Your task to perform on an android device: Is it going to rain tomorrow? Image 0: 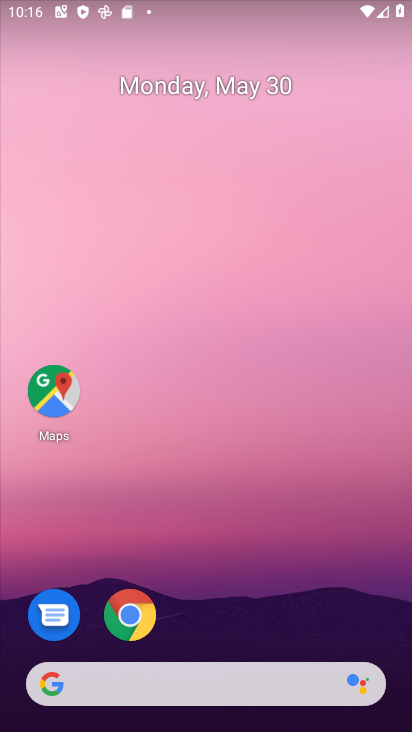
Step 0: drag from (294, 453) to (199, 14)
Your task to perform on an android device: Is it going to rain tomorrow? Image 1: 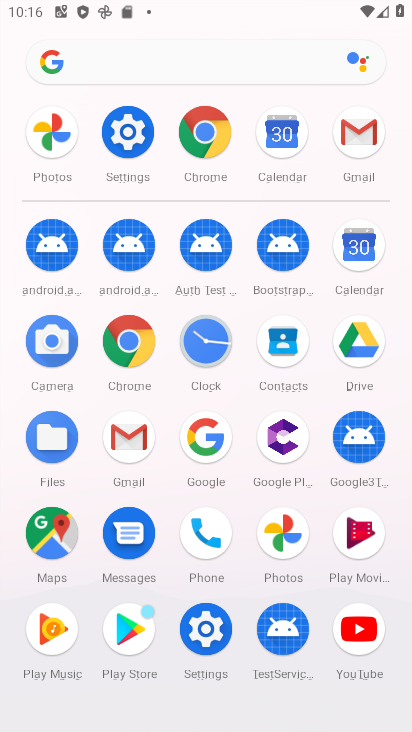
Step 1: click (220, 433)
Your task to perform on an android device: Is it going to rain tomorrow? Image 2: 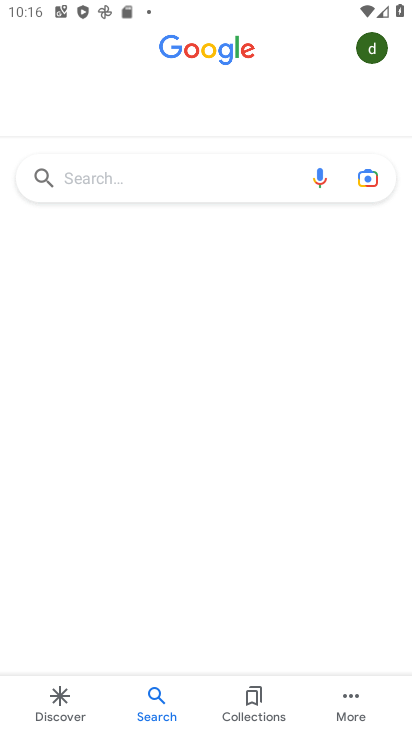
Step 2: click (132, 177)
Your task to perform on an android device: Is it going to rain tomorrow? Image 3: 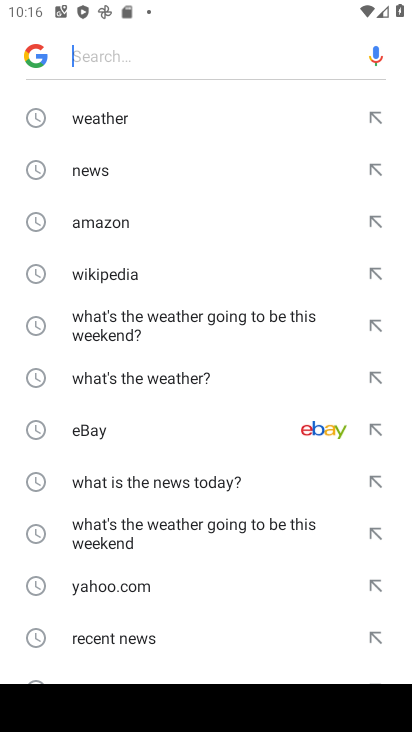
Step 3: click (95, 122)
Your task to perform on an android device: Is it going to rain tomorrow? Image 4: 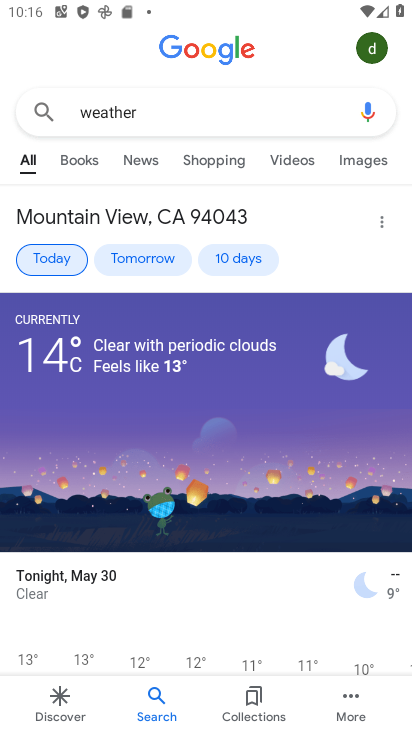
Step 4: click (148, 256)
Your task to perform on an android device: Is it going to rain tomorrow? Image 5: 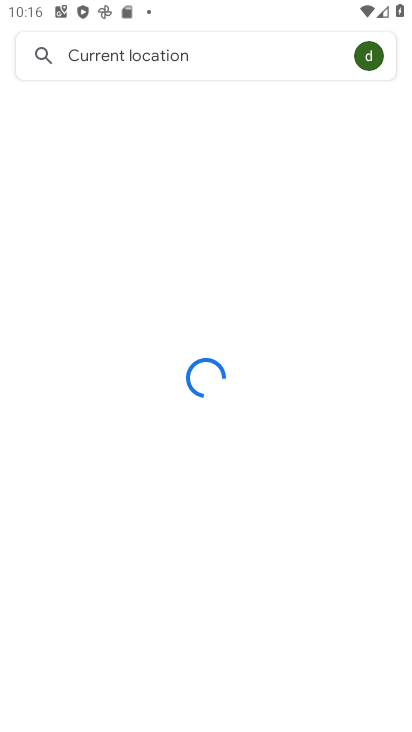
Step 5: click (338, 418)
Your task to perform on an android device: Is it going to rain tomorrow? Image 6: 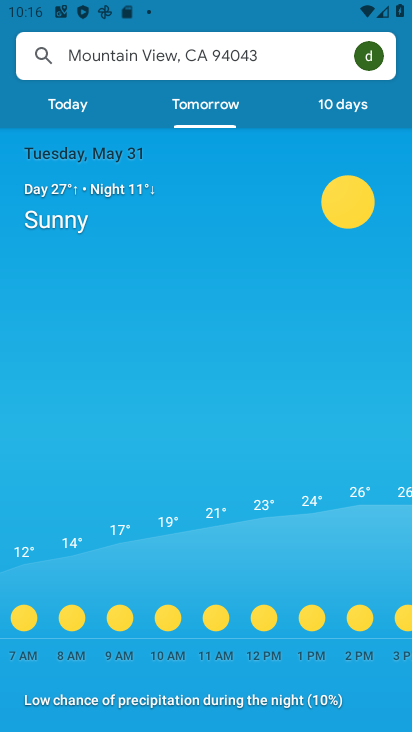
Step 6: task complete